Your task to perform on an android device: Set the phone to "Do not disturb". Image 0: 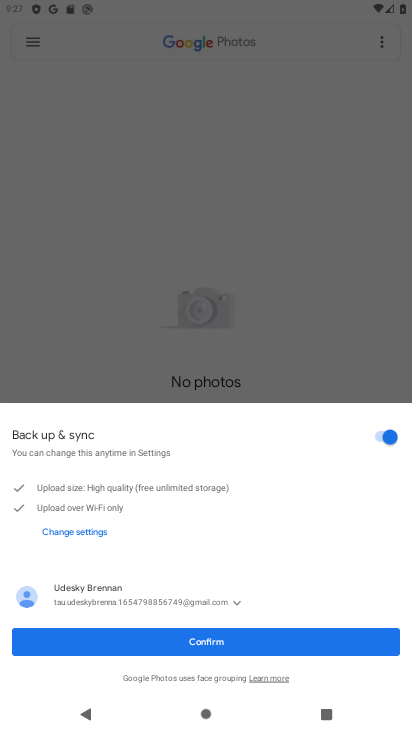
Step 0: press home button
Your task to perform on an android device: Set the phone to "Do not disturb". Image 1: 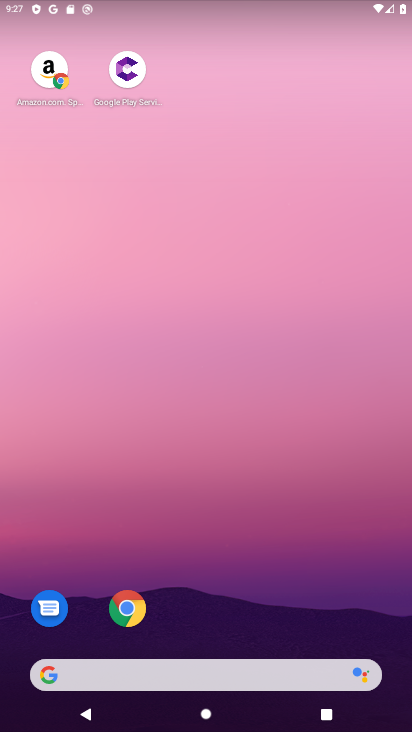
Step 1: drag from (290, 661) to (215, 137)
Your task to perform on an android device: Set the phone to "Do not disturb". Image 2: 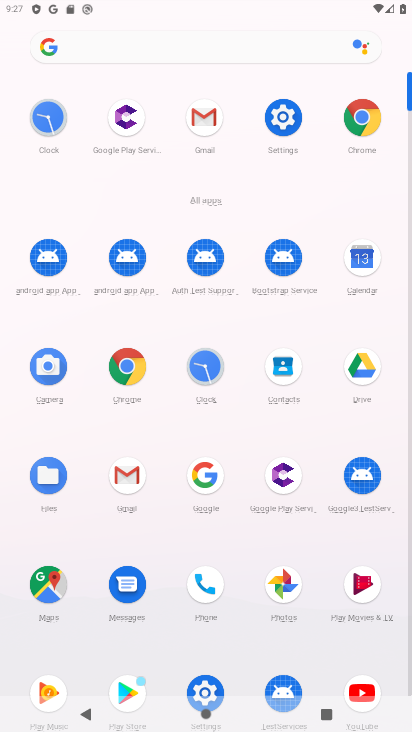
Step 2: click (272, 113)
Your task to perform on an android device: Set the phone to "Do not disturb". Image 3: 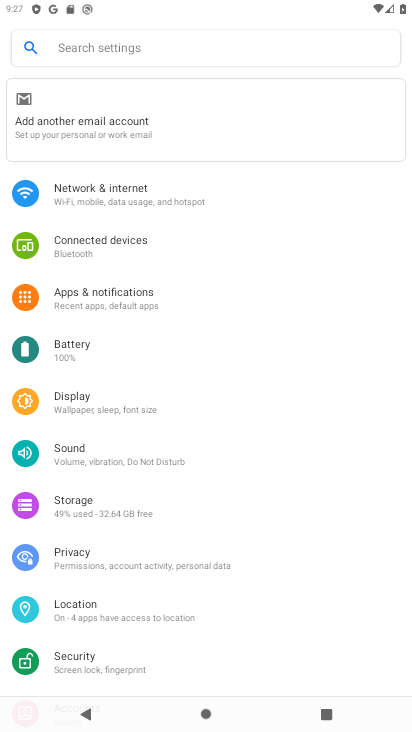
Step 3: click (117, 453)
Your task to perform on an android device: Set the phone to "Do not disturb". Image 4: 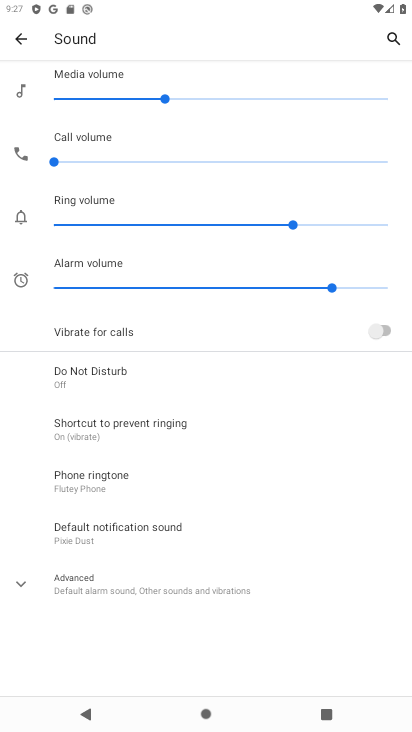
Step 4: click (95, 379)
Your task to perform on an android device: Set the phone to "Do not disturb". Image 5: 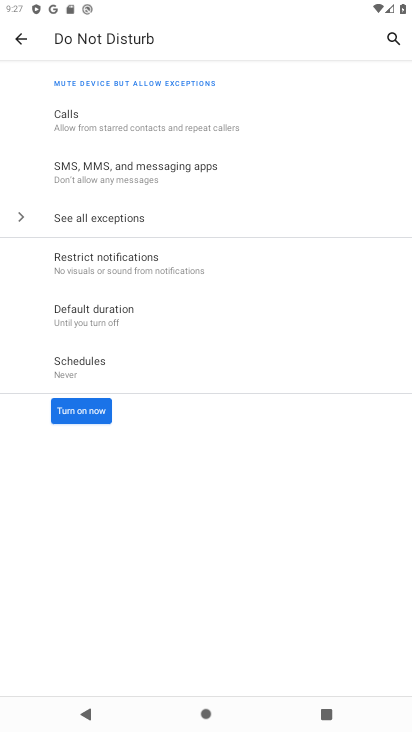
Step 5: click (91, 405)
Your task to perform on an android device: Set the phone to "Do not disturb". Image 6: 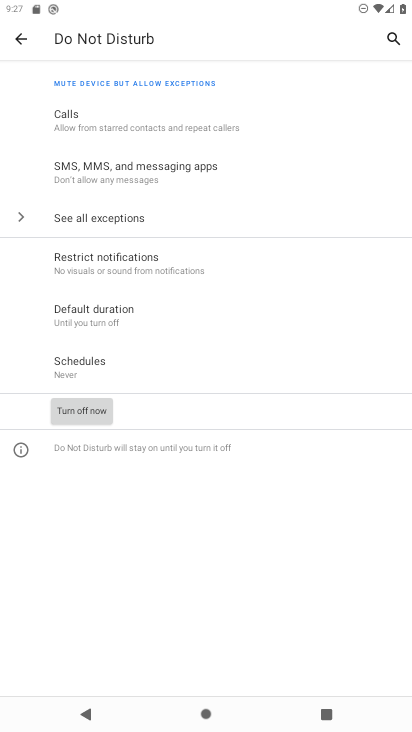
Step 6: task complete